Your task to perform on an android device: turn on the 24-hour format for clock Image 0: 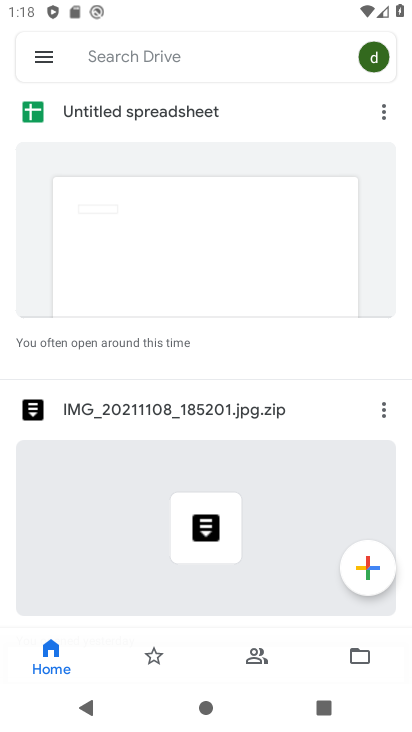
Step 0: press home button
Your task to perform on an android device: turn on the 24-hour format for clock Image 1: 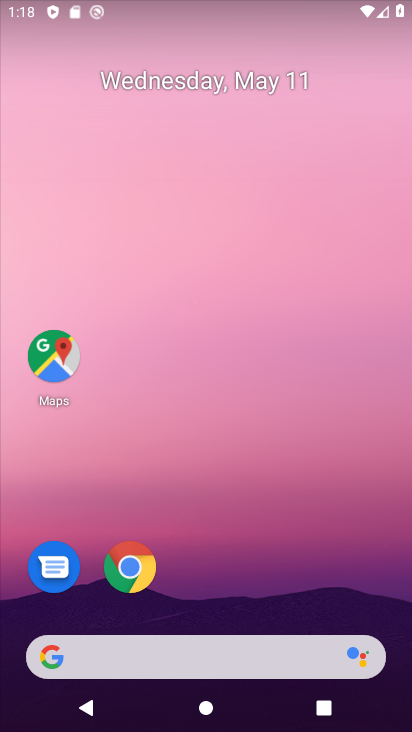
Step 1: drag from (239, 636) to (330, 728)
Your task to perform on an android device: turn on the 24-hour format for clock Image 2: 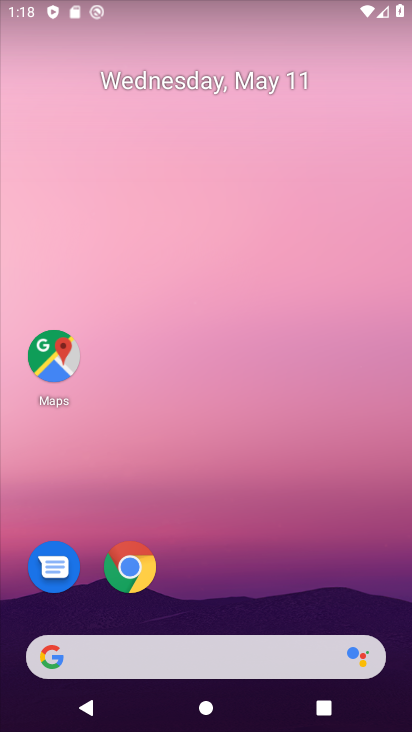
Step 2: drag from (200, 624) to (125, 7)
Your task to perform on an android device: turn on the 24-hour format for clock Image 3: 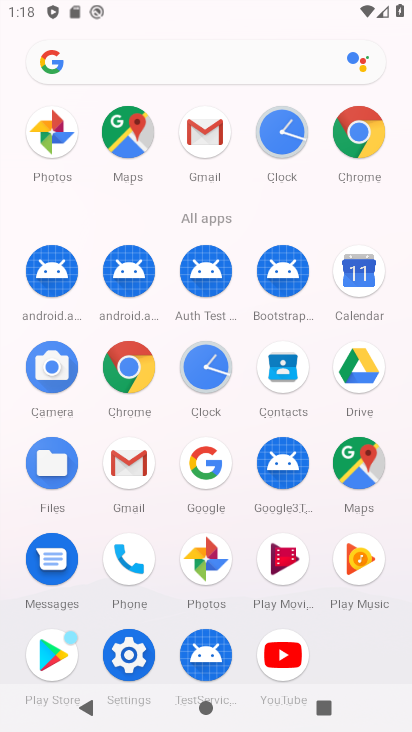
Step 3: click (201, 384)
Your task to perform on an android device: turn on the 24-hour format for clock Image 4: 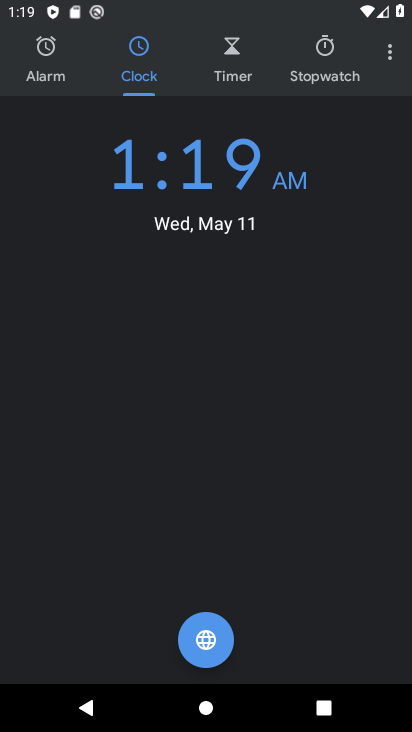
Step 4: click (383, 62)
Your task to perform on an android device: turn on the 24-hour format for clock Image 5: 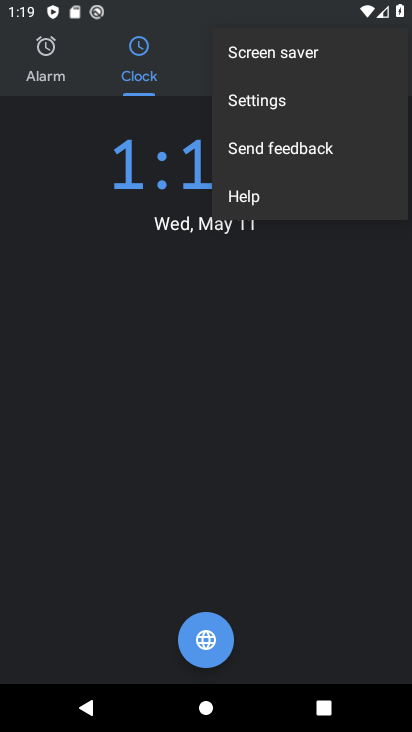
Step 5: click (233, 107)
Your task to perform on an android device: turn on the 24-hour format for clock Image 6: 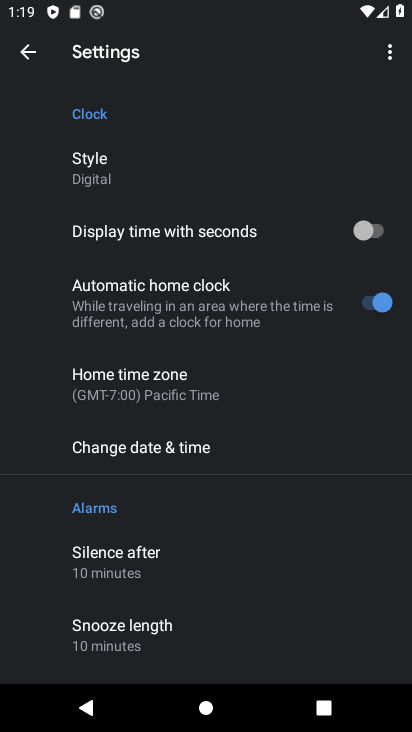
Step 6: click (125, 461)
Your task to perform on an android device: turn on the 24-hour format for clock Image 7: 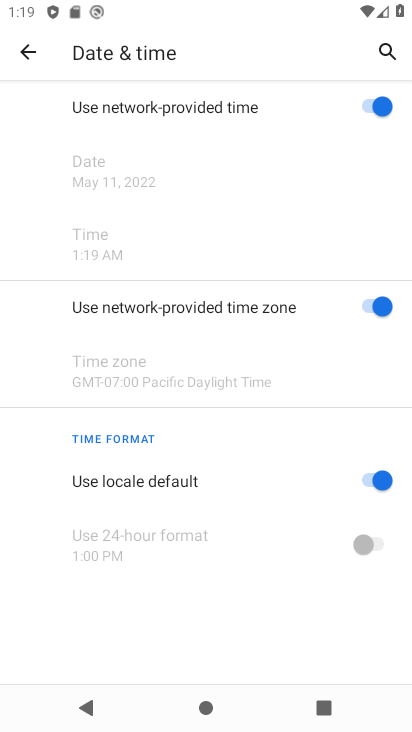
Step 7: click (371, 482)
Your task to perform on an android device: turn on the 24-hour format for clock Image 8: 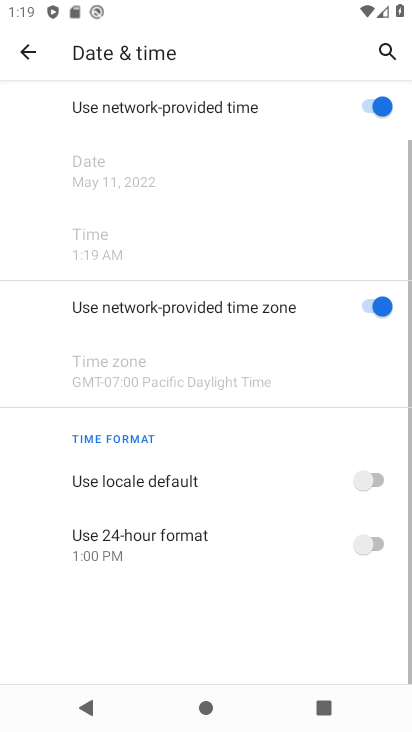
Step 8: click (365, 544)
Your task to perform on an android device: turn on the 24-hour format for clock Image 9: 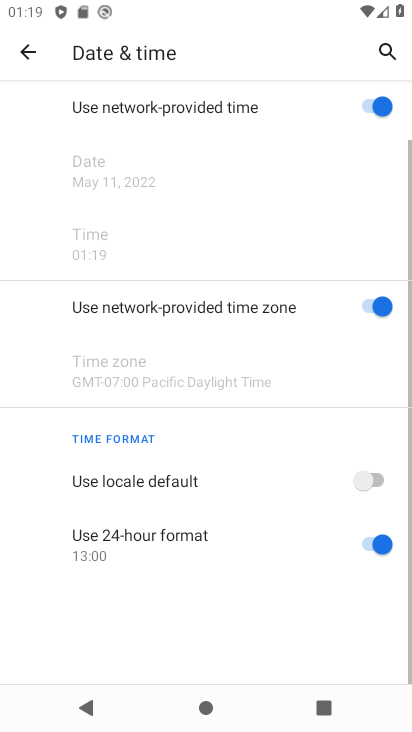
Step 9: task complete